Your task to perform on an android device: Open the stopwatch Image 0: 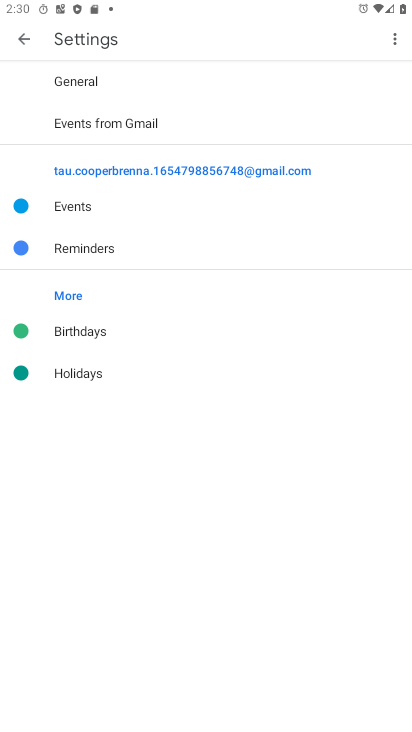
Step 0: press back button
Your task to perform on an android device: Open the stopwatch Image 1: 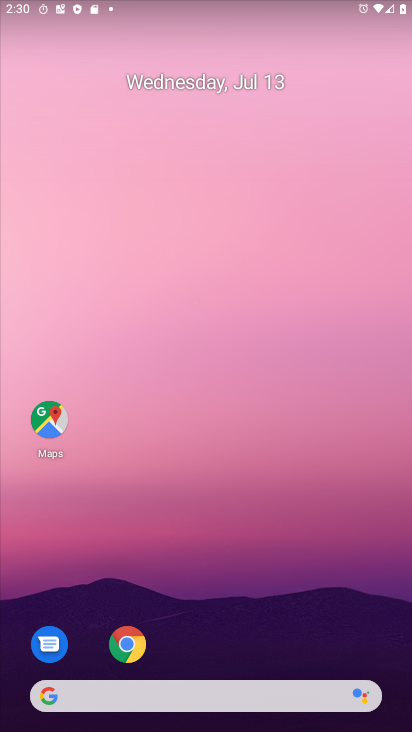
Step 1: drag from (248, 603) to (277, 70)
Your task to perform on an android device: Open the stopwatch Image 2: 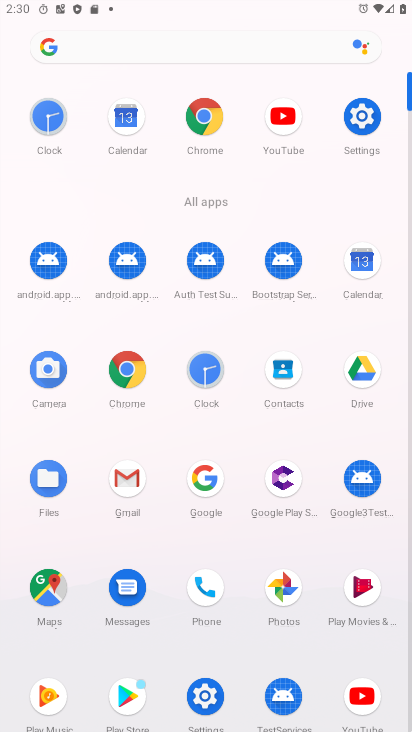
Step 2: click (193, 381)
Your task to perform on an android device: Open the stopwatch Image 3: 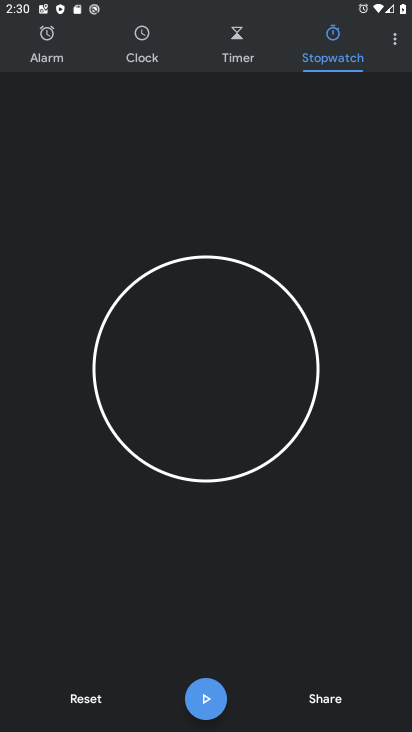
Step 3: task complete